Your task to perform on an android device: Open Google Maps and go to "Timeline" Image 0: 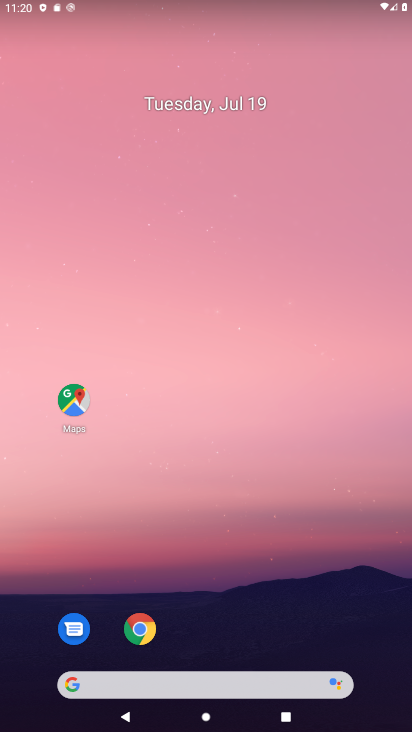
Step 0: drag from (313, 604) to (331, 54)
Your task to perform on an android device: Open Google Maps and go to "Timeline" Image 1: 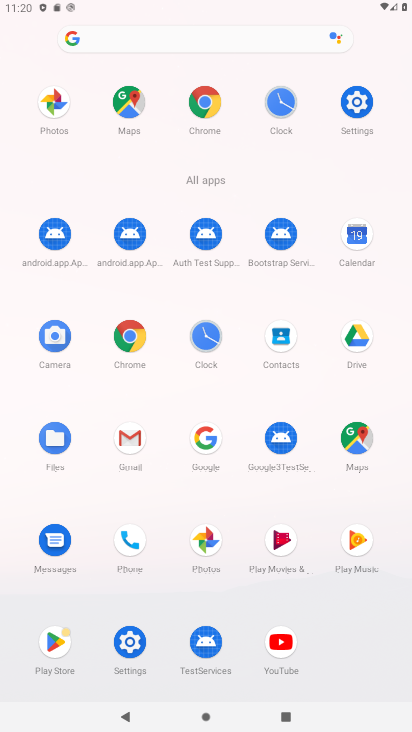
Step 1: click (358, 444)
Your task to perform on an android device: Open Google Maps and go to "Timeline" Image 2: 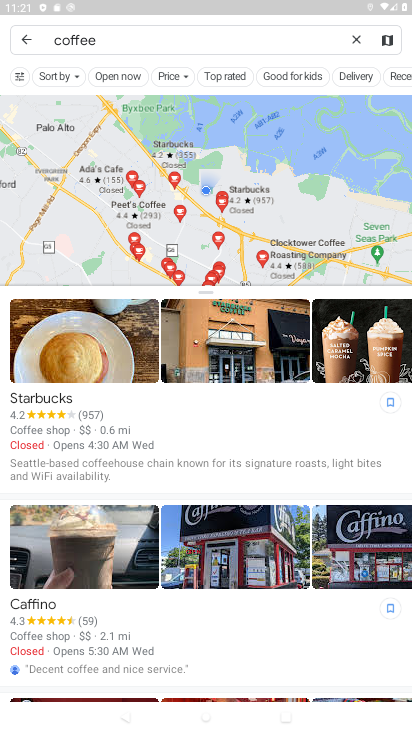
Step 2: press back button
Your task to perform on an android device: Open Google Maps and go to "Timeline" Image 3: 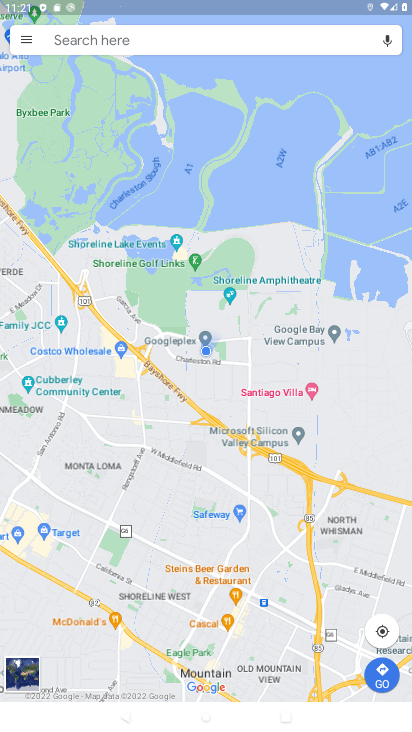
Step 3: click (21, 36)
Your task to perform on an android device: Open Google Maps and go to "Timeline" Image 4: 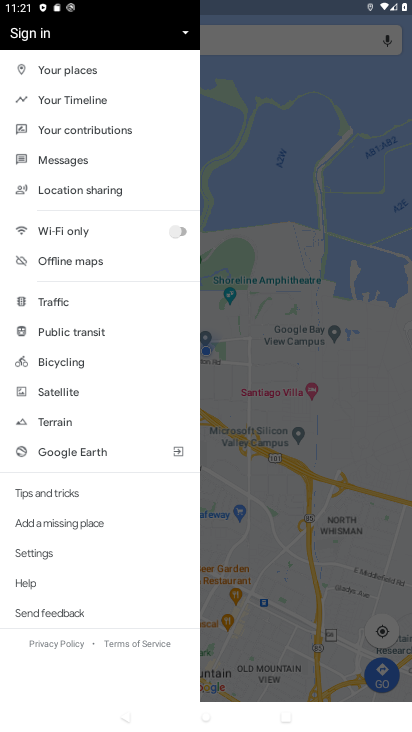
Step 4: click (86, 102)
Your task to perform on an android device: Open Google Maps and go to "Timeline" Image 5: 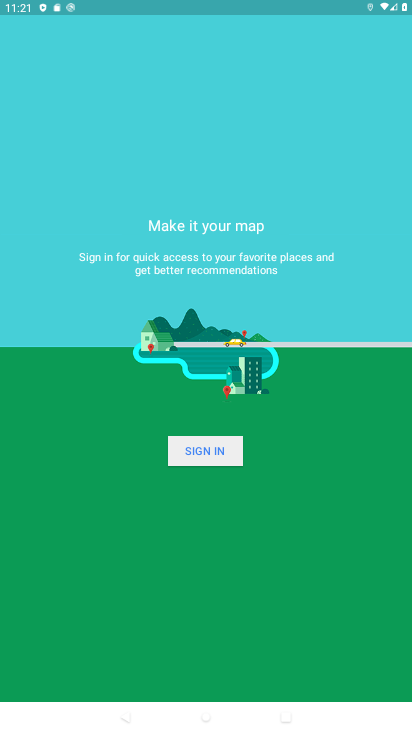
Step 5: task complete